Your task to perform on an android device: Go to Yahoo.com Image 0: 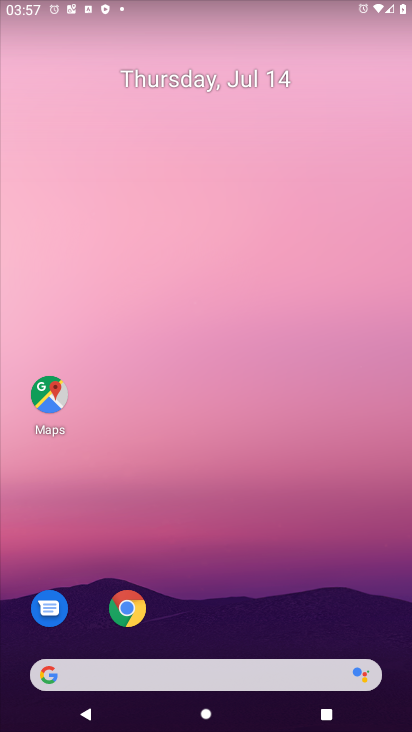
Step 0: click (128, 612)
Your task to perform on an android device: Go to Yahoo.com Image 1: 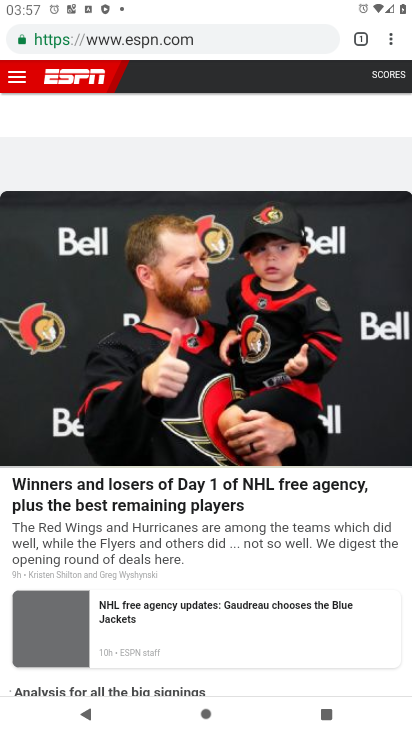
Step 1: click (222, 38)
Your task to perform on an android device: Go to Yahoo.com Image 2: 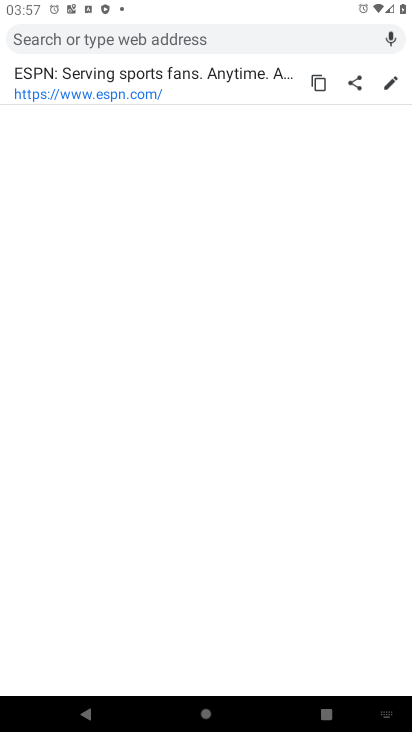
Step 2: type "yahoo.com"
Your task to perform on an android device: Go to Yahoo.com Image 3: 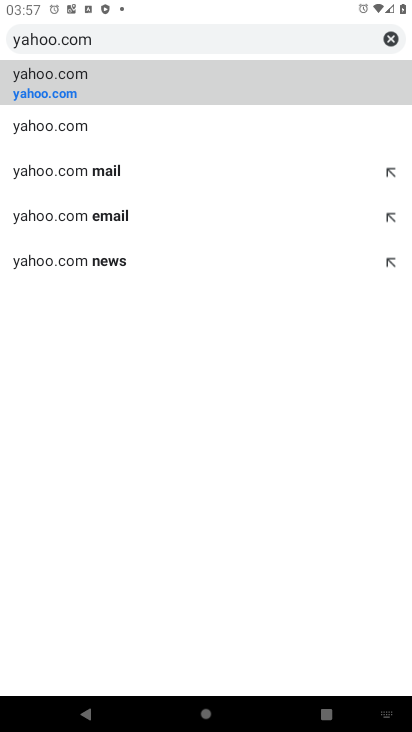
Step 3: click (66, 72)
Your task to perform on an android device: Go to Yahoo.com Image 4: 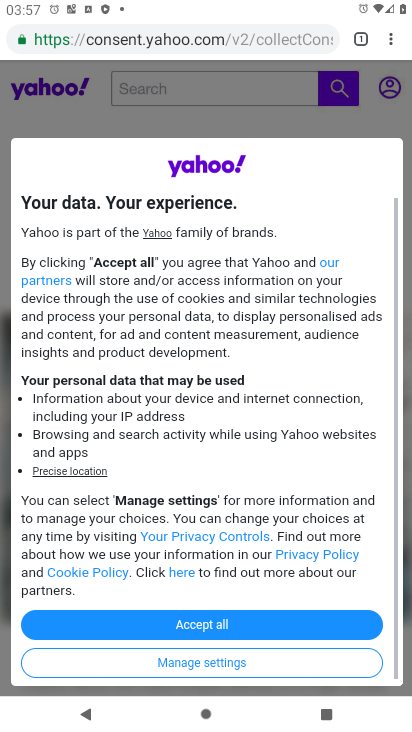
Step 4: click (193, 626)
Your task to perform on an android device: Go to Yahoo.com Image 5: 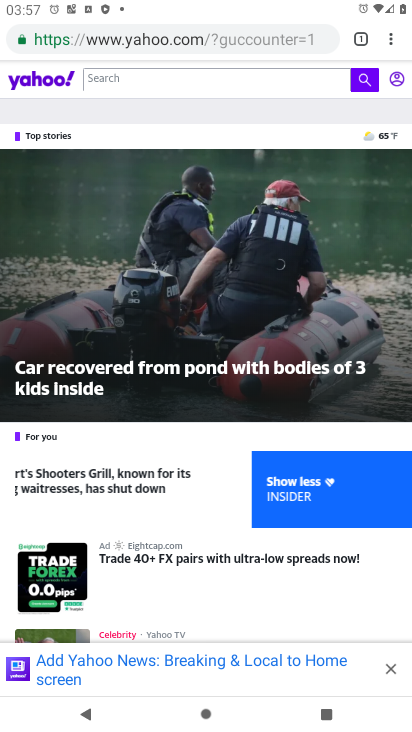
Step 5: task complete